Your task to perform on an android device: What's the weather going to be tomorrow? Image 0: 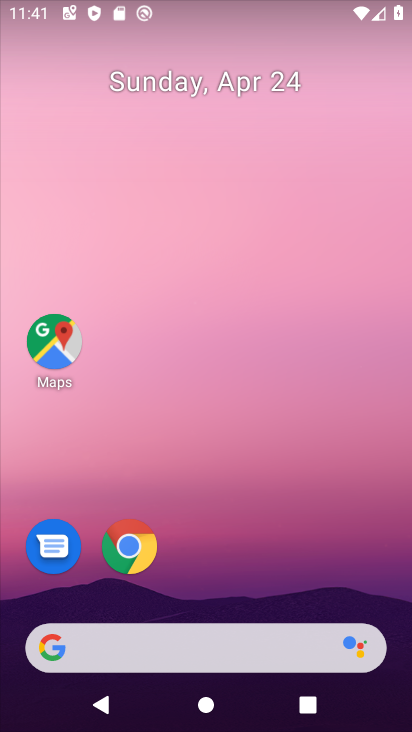
Step 0: drag from (207, 586) to (228, 196)
Your task to perform on an android device: What's the weather going to be tomorrow? Image 1: 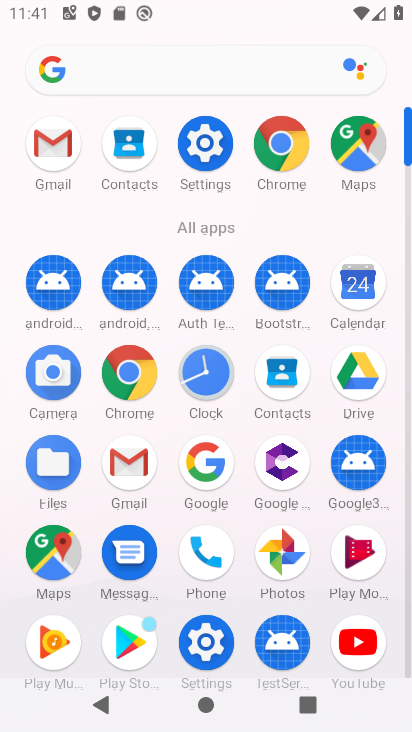
Step 1: click (203, 476)
Your task to perform on an android device: What's the weather going to be tomorrow? Image 2: 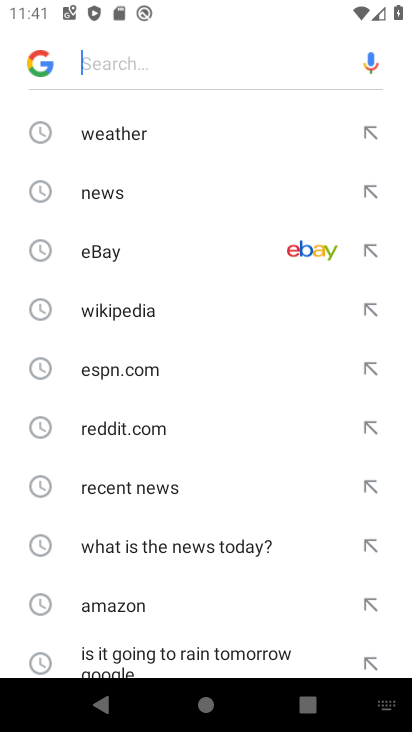
Step 2: click (122, 134)
Your task to perform on an android device: What's the weather going to be tomorrow? Image 3: 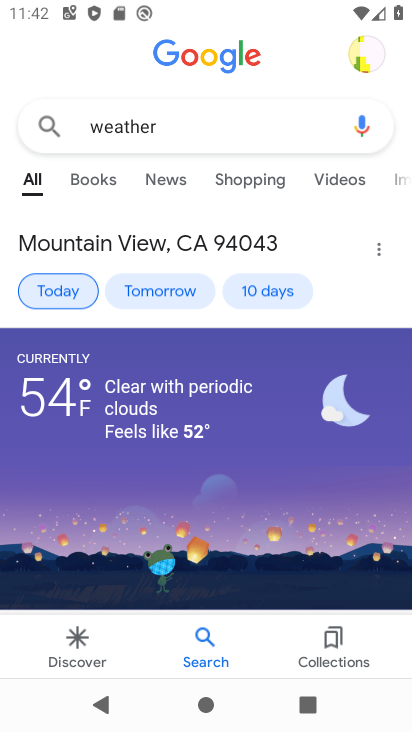
Step 3: click (148, 295)
Your task to perform on an android device: What's the weather going to be tomorrow? Image 4: 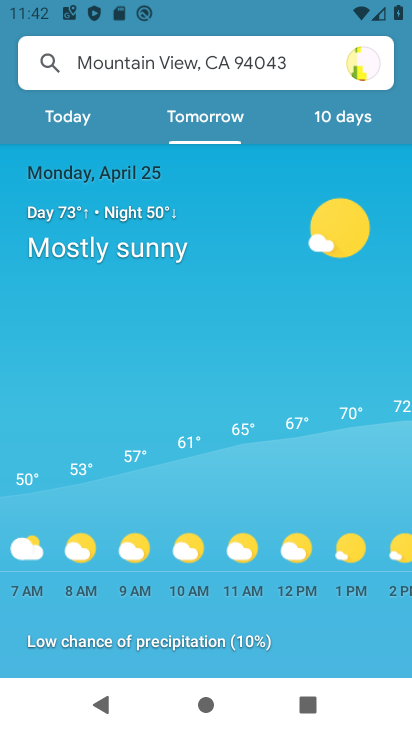
Step 4: task complete